Your task to perform on an android device: change text size in settings app Image 0: 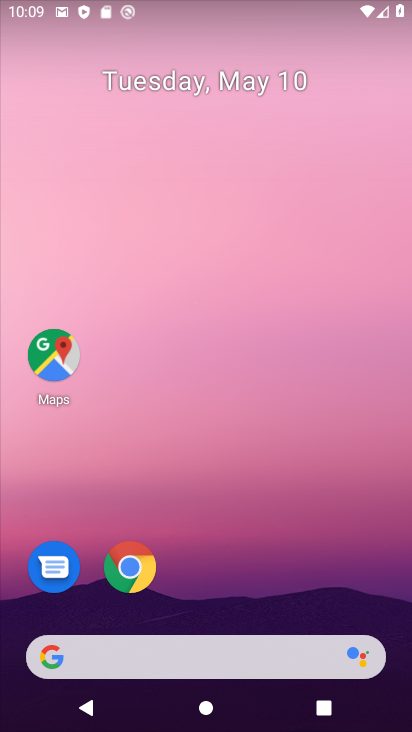
Step 0: drag from (198, 512) to (262, 17)
Your task to perform on an android device: change text size in settings app Image 1: 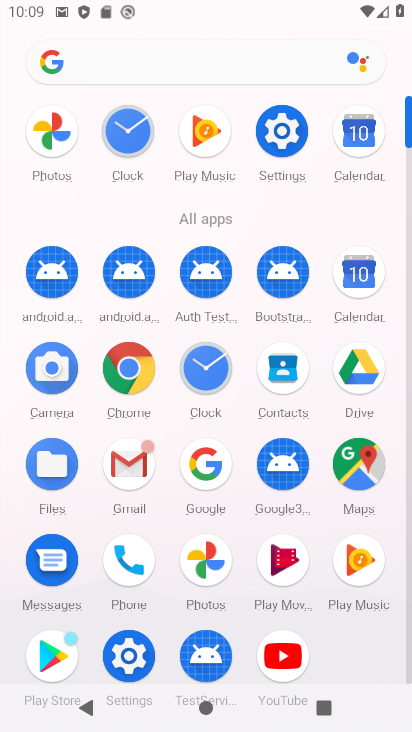
Step 1: click (280, 143)
Your task to perform on an android device: change text size in settings app Image 2: 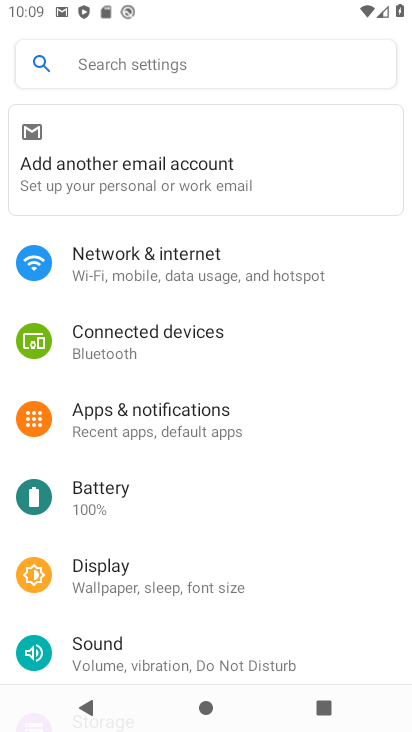
Step 2: click (104, 565)
Your task to perform on an android device: change text size in settings app Image 3: 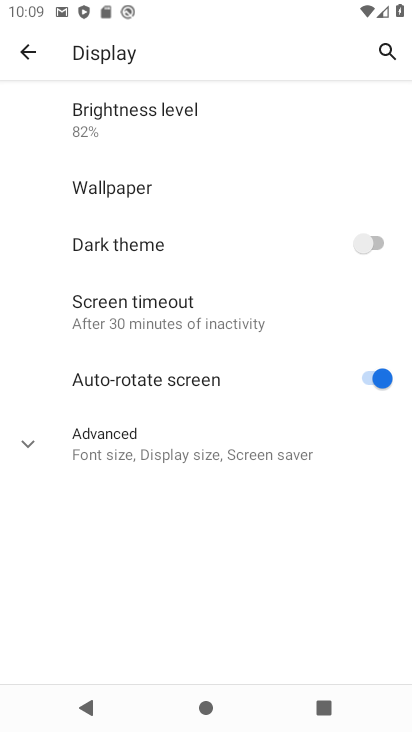
Step 3: click (139, 448)
Your task to perform on an android device: change text size in settings app Image 4: 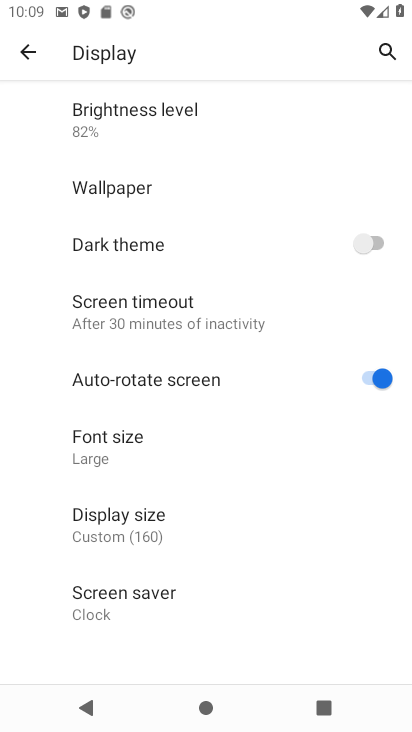
Step 4: click (142, 466)
Your task to perform on an android device: change text size in settings app Image 5: 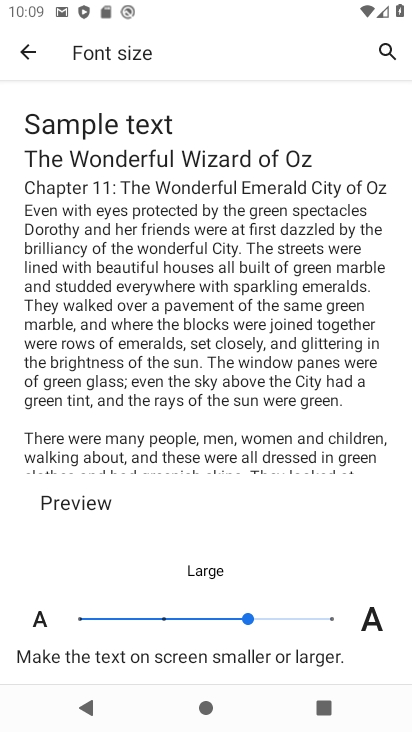
Step 5: click (159, 619)
Your task to perform on an android device: change text size in settings app Image 6: 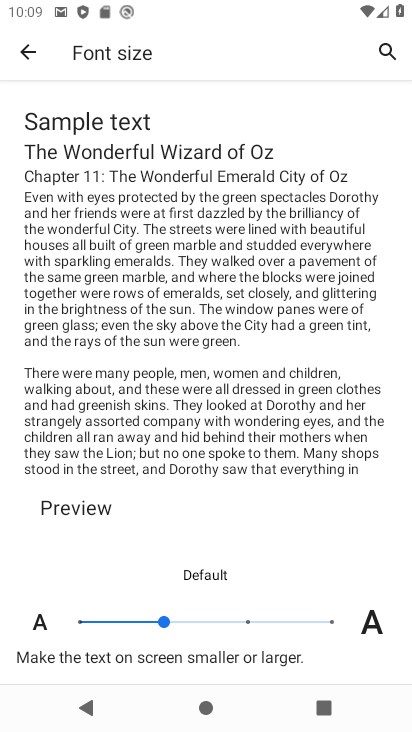
Step 6: task complete